Your task to perform on an android device: clear all cookies in the chrome app Image 0: 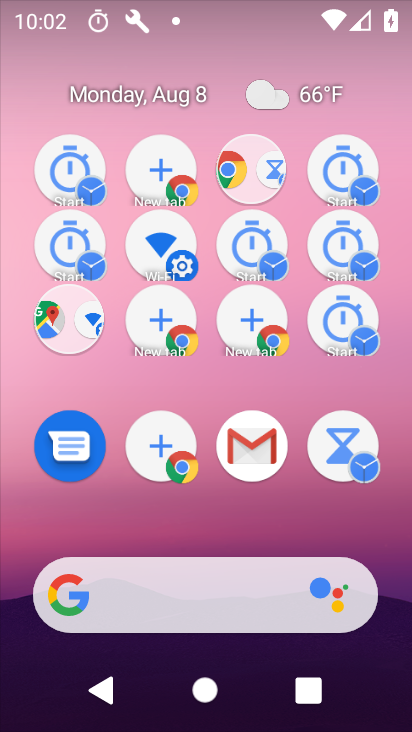
Step 0: click (262, 185)
Your task to perform on an android device: clear all cookies in the chrome app Image 1: 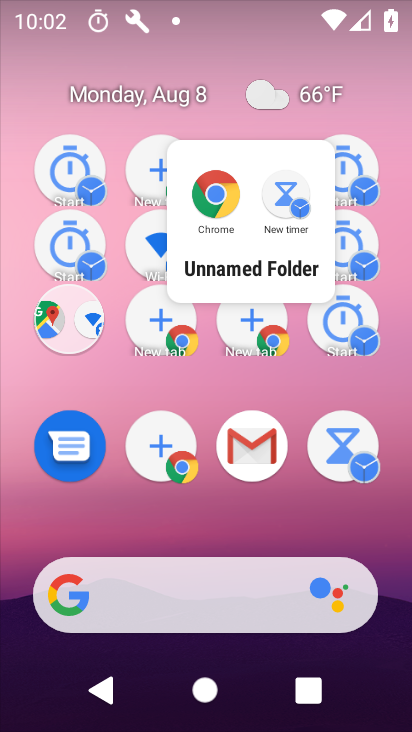
Step 1: drag from (259, 600) to (186, 248)
Your task to perform on an android device: clear all cookies in the chrome app Image 2: 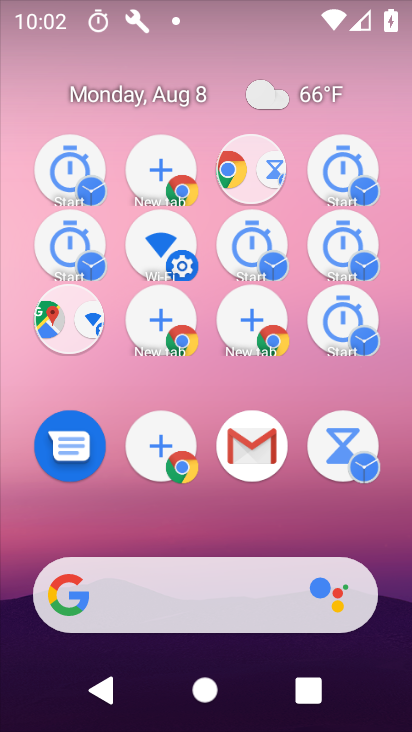
Step 2: drag from (200, 525) to (189, 300)
Your task to perform on an android device: clear all cookies in the chrome app Image 3: 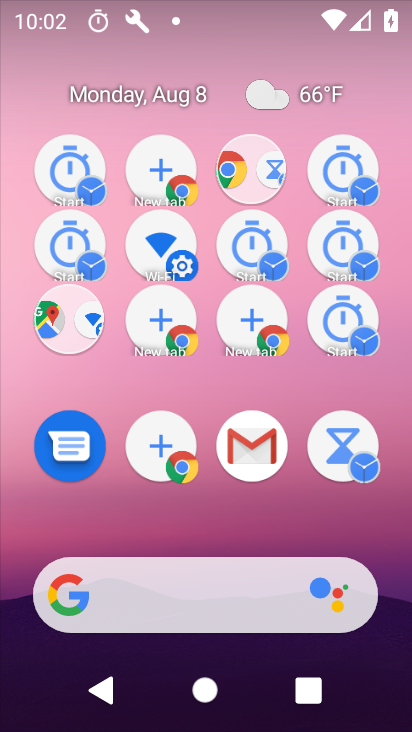
Step 3: click (250, 463)
Your task to perform on an android device: clear all cookies in the chrome app Image 4: 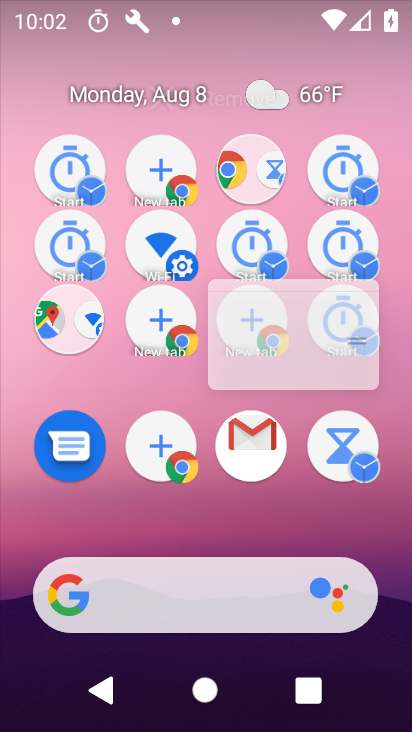
Step 4: drag from (258, 623) to (219, 250)
Your task to perform on an android device: clear all cookies in the chrome app Image 5: 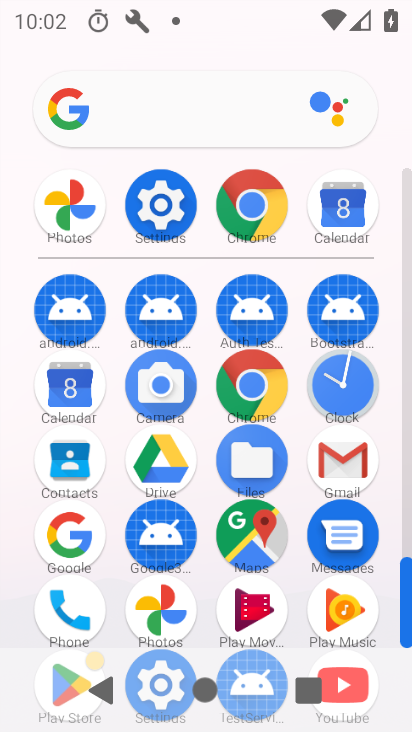
Step 5: press back button
Your task to perform on an android device: clear all cookies in the chrome app Image 6: 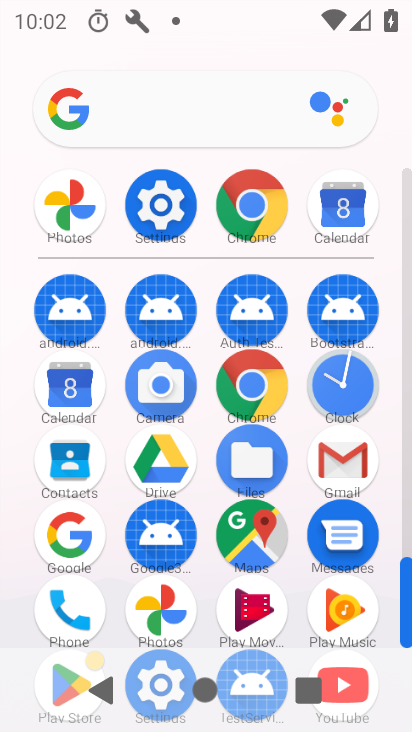
Step 6: click (225, 196)
Your task to perform on an android device: clear all cookies in the chrome app Image 7: 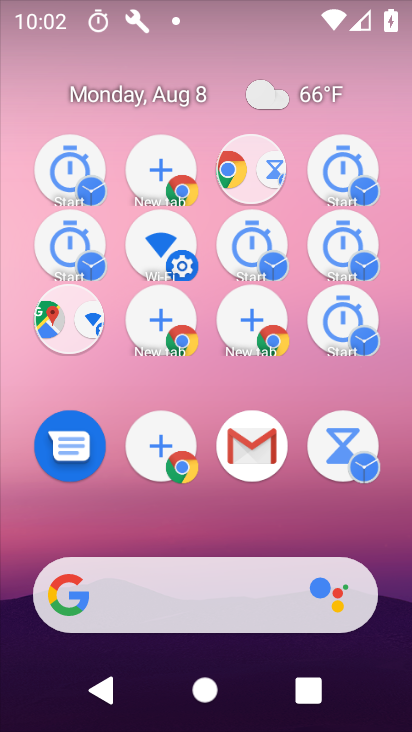
Step 7: drag from (250, 554) to (250, 217)
Your task to perform on an android device: clear all cookies in the chrome app Image 8: 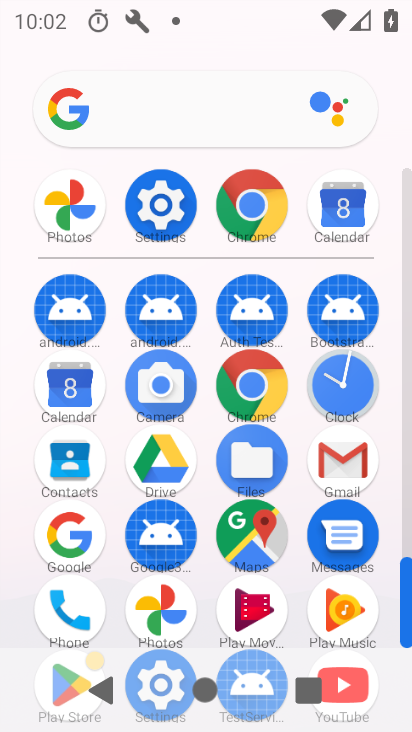
Step 8: click (252, 232)
Your task to perform on an android device: clear all cookies in the chrome app Image 9: 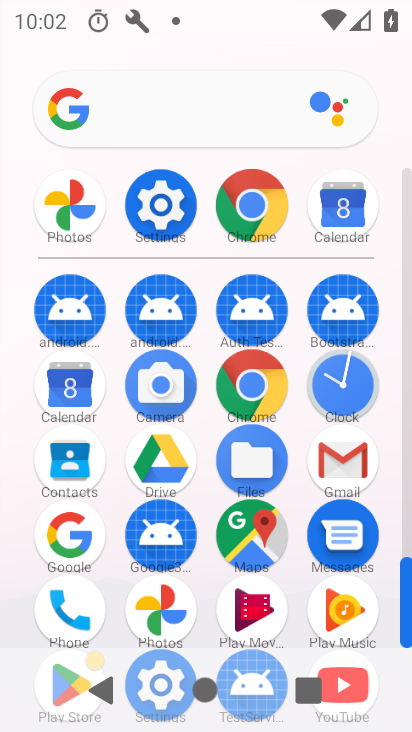
Step 9: click (258, 222)
Your task to perform on an android device: clear all cookies in the chrome app Image 10: 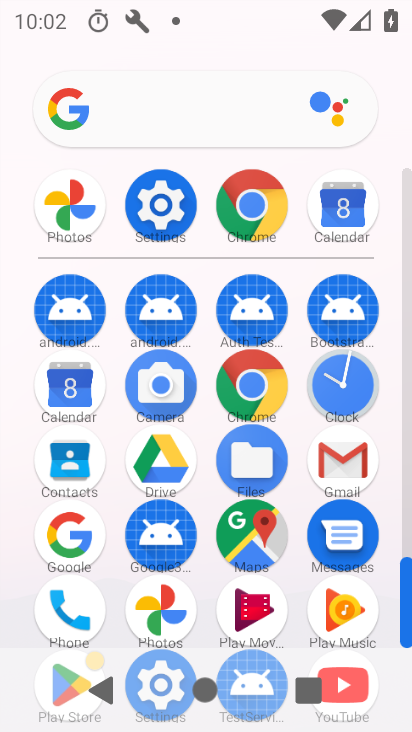
Step 10: click (261, 222)
Your task to perform on an android device: clear all cookies in the chrome app Image 11: 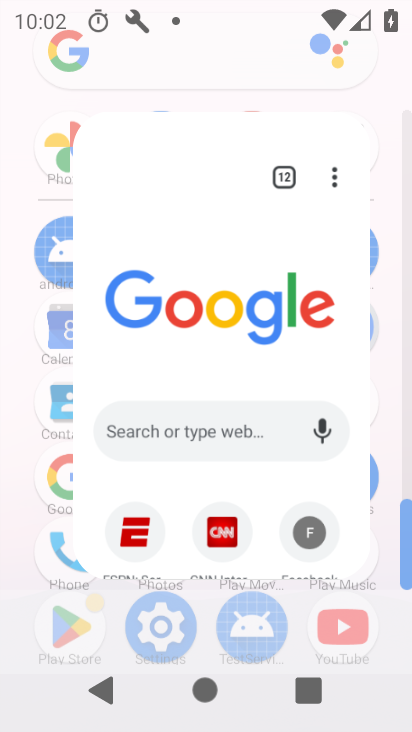
Step 11: click (261, 222)
Your task to perform on an android device: clear all cookies in the chrome app Image 12: 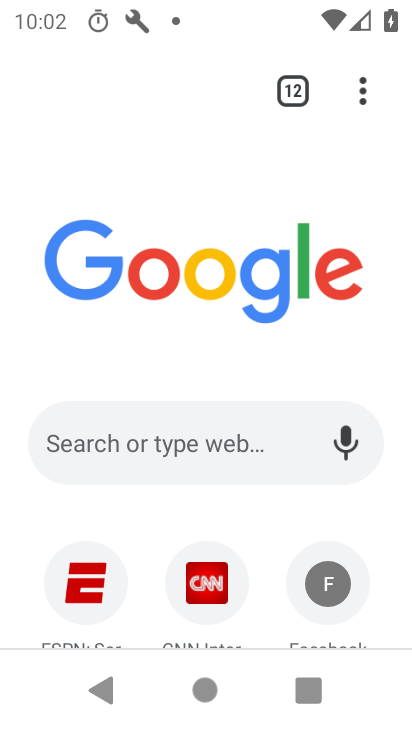
Step 12: drag from (359, 79) to (81, 470)
Your task to perform on an android device: clear all cookies in the chrome app Image 13: 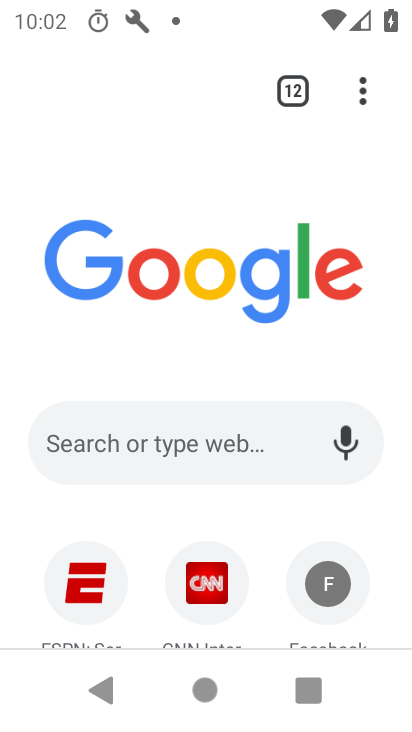
Step 13: click (81, 470)
Your task to perform on an android device: clear all cookies in the chrome app Image 14: 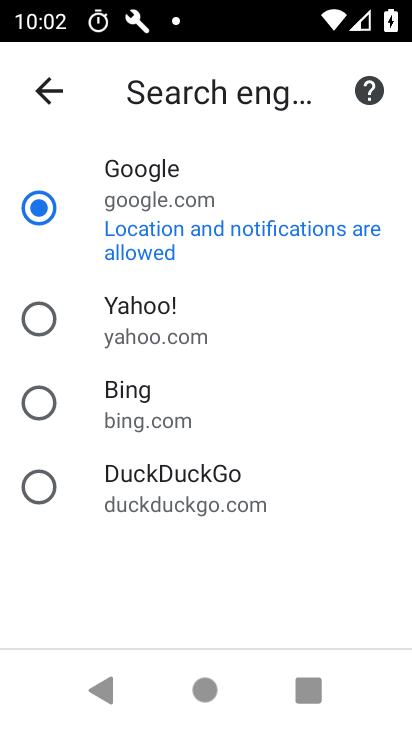
Step 14: click (43, 72)
Your task to perform on an android device: clear all cookies in the chrome app Image 15: 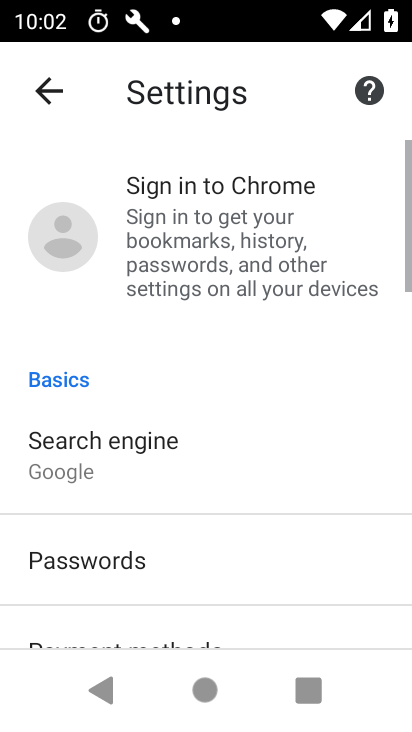
Step 15: drag from (168, 582) to (142, 166)
Your task to perform on an android device: clear all cookies in the chrome app Image 16: 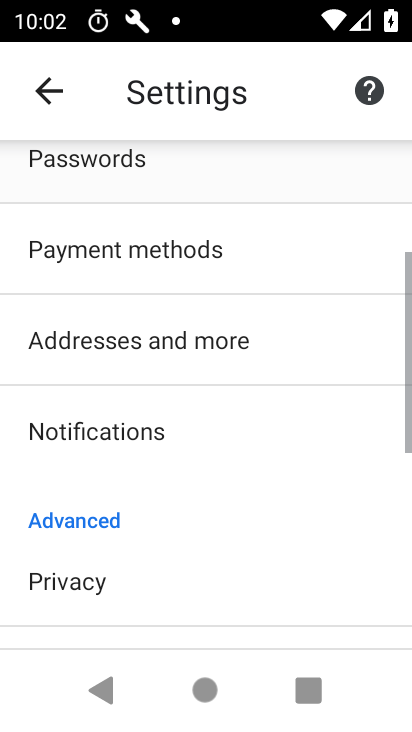
Step 16: drag from (216, 521) to (205, 225)
Your task to perform on an android device: clear all cookies in the chrome app Image 17: 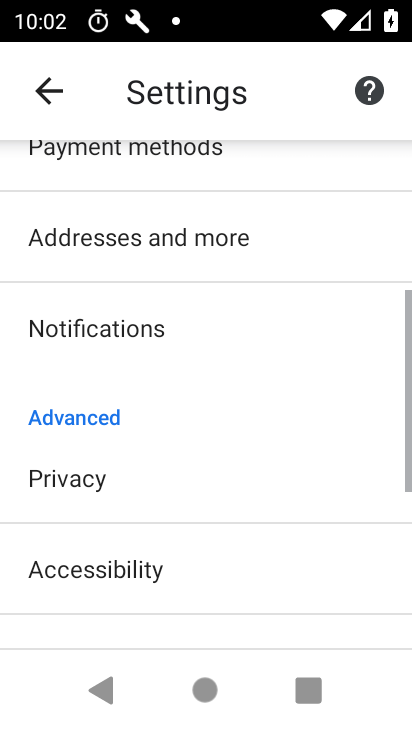
Step 17: drag from (222, 430) to (185, 224)
Your task to perform on an android device: clear all cookies in the chrome app Image 18: 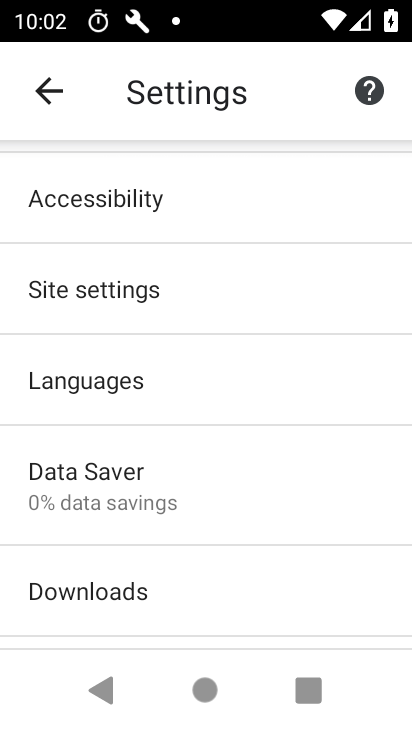
Step 18: drag from (114, 484) to (114, 200)
Your task to perform on an android device: clear all cookies in the chrome app Image 19: 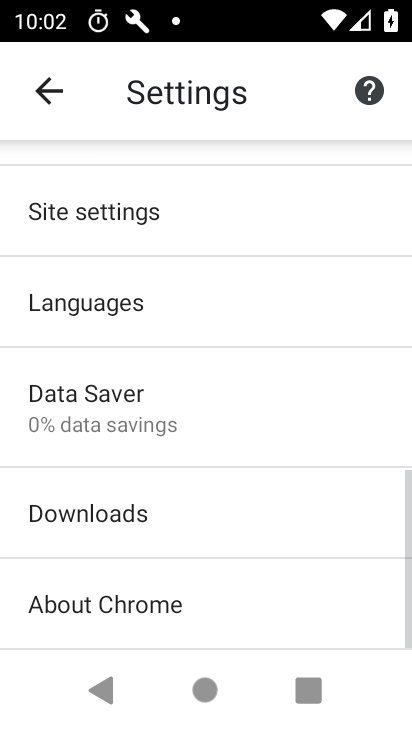
Step 19: click (87, 214)
Your task to perform on an android device: clear all cookies in the chrome app Image 20: 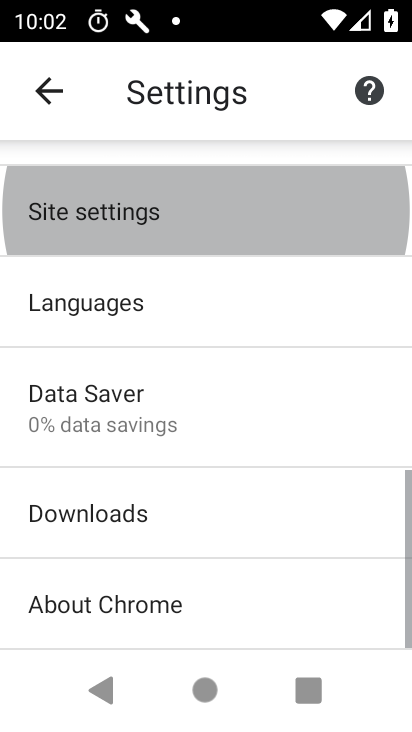
Step 20: click (85, 212)
Your task to perform on an android device: clear all cookies in the chrome app Image 21: 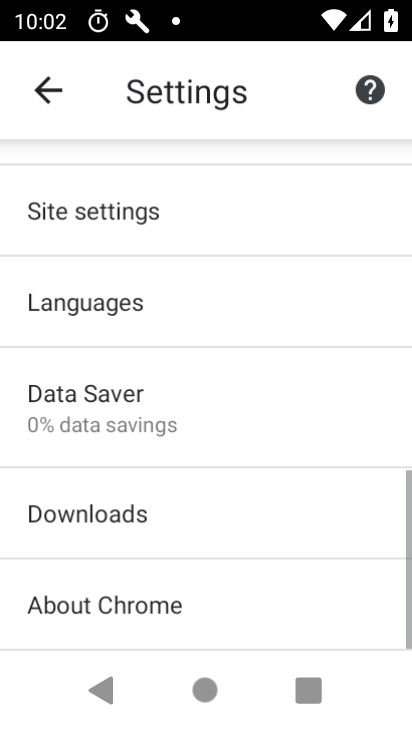
Step 21: click (85, 211)
Your task to perform on an android device: clear all cookies in the chrome app Image 22: 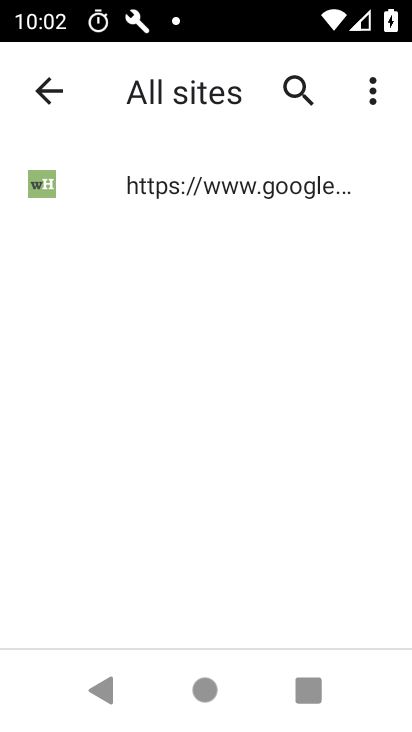
Step 22: click (55, 86)
Your task to perform on an android device: clear all cookies in the chrome app Image 23: 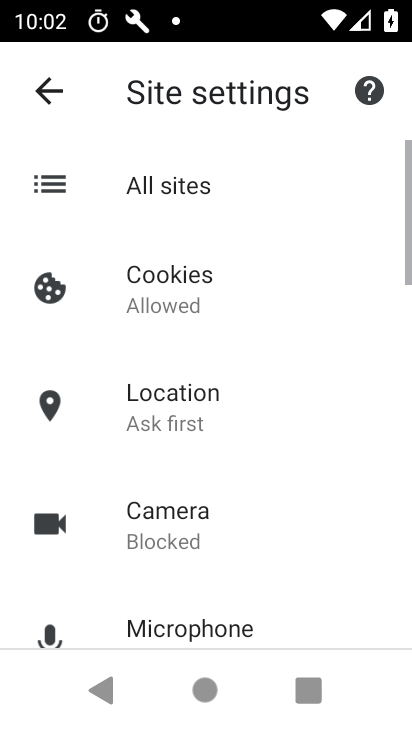
Step 23: click (163, 287)
Your task to perform on an android device: clear all cookies in the chrome app Image 24: 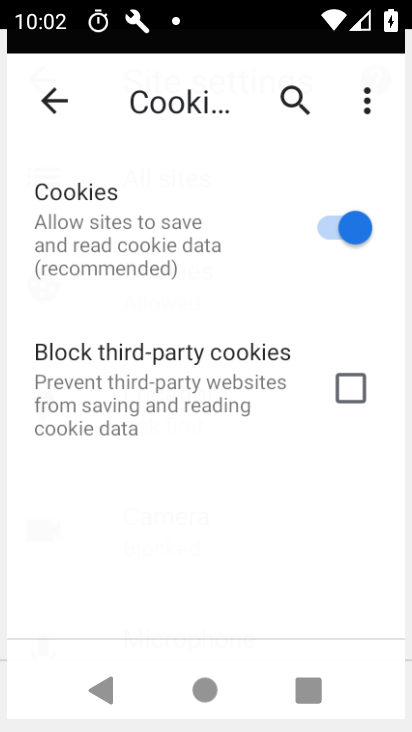
Step 24: click (163, 287)
Your task to perform on an android device: clear all cookies in the chrome app Image 25: 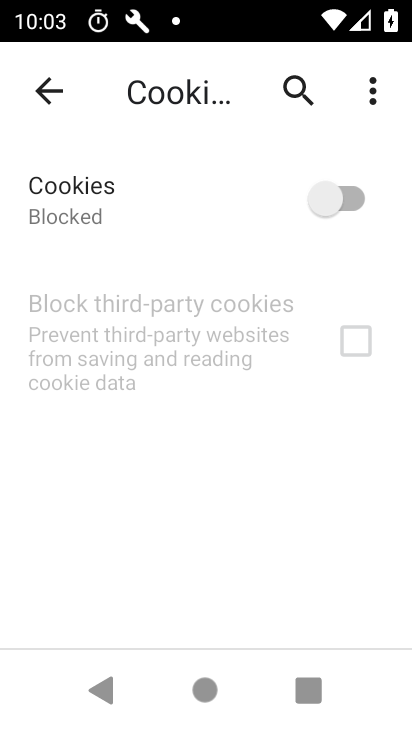
Step 25: task complete